Your task to perform on an android device: manage bookmarks in the chrome app Image 0: 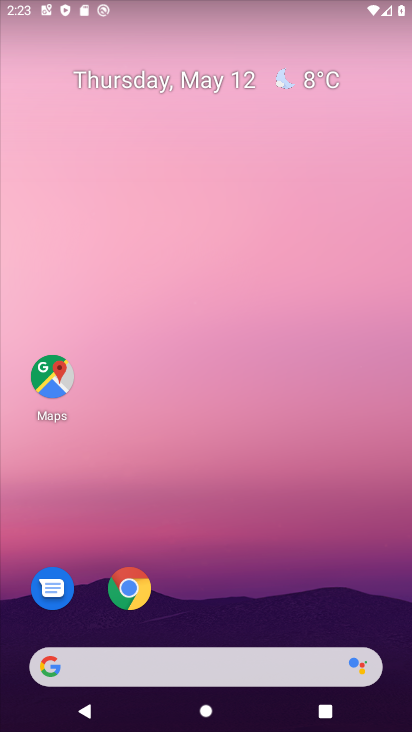
Step 0: drag from (234, 516) to (228, 50)
Your task to perform on an android device: manage bookmarks in the chrome app Image 1: 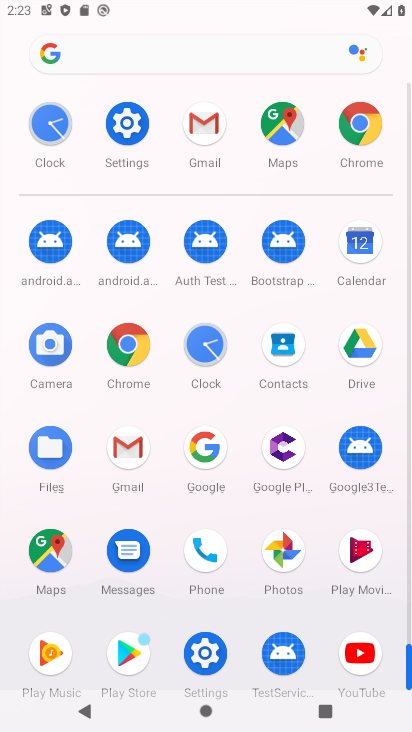
Step 1: drag from (4, 585) to (4, 347)
Your task to perform on an android device: manage bookmarks in the chrome app Image 2: 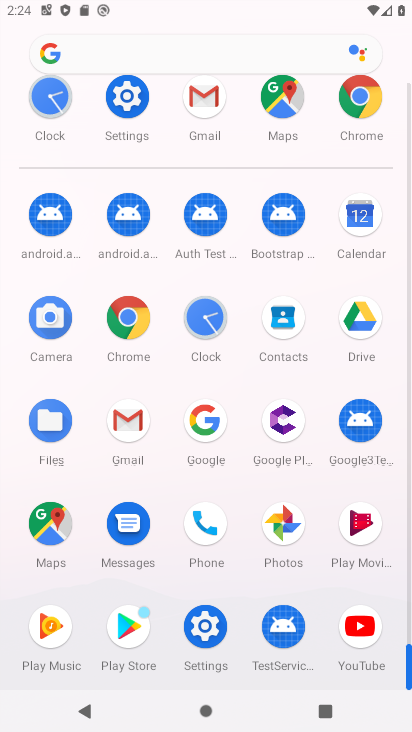
Step 2: click (132, 318)
Your task to perform on an android device: manage bookmarks in the chrome app Image 3: 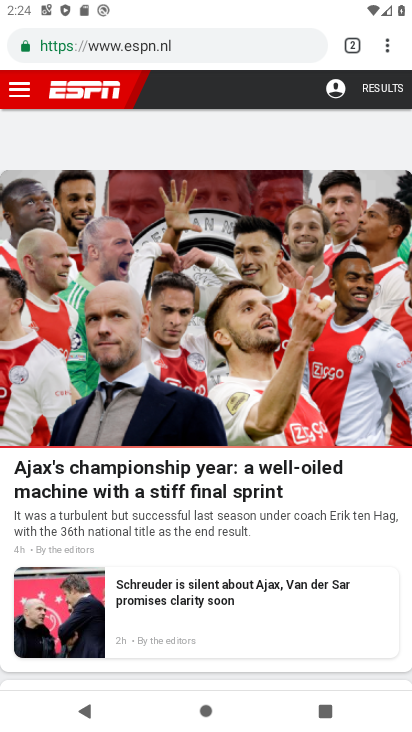
Step 3: drag from (386, 46) to (210, 167)
Your task to perform on an android device: manage bookmarks in the chrome app Image 4: 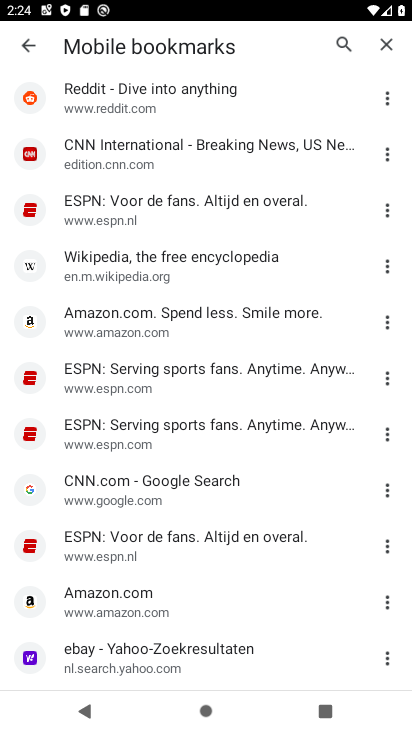
Step 4: click (384, 605)
Your task to perform on an android device: manage bookmarks in the chrome app Image 5: 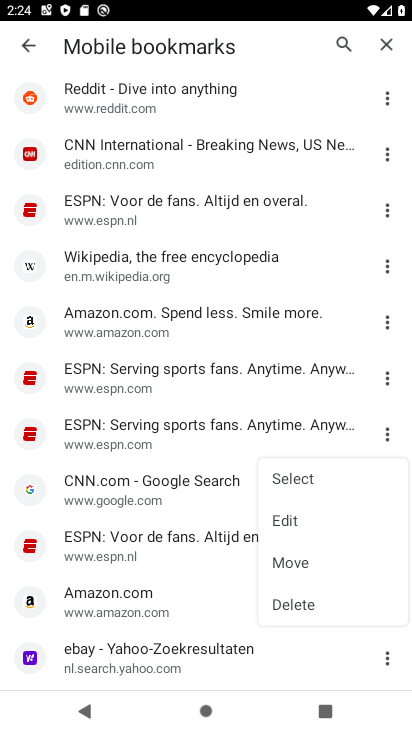
Step 5: click (338, 594)
Your task to perform on an android device: manage bookmarks in the chrome app Image 6: 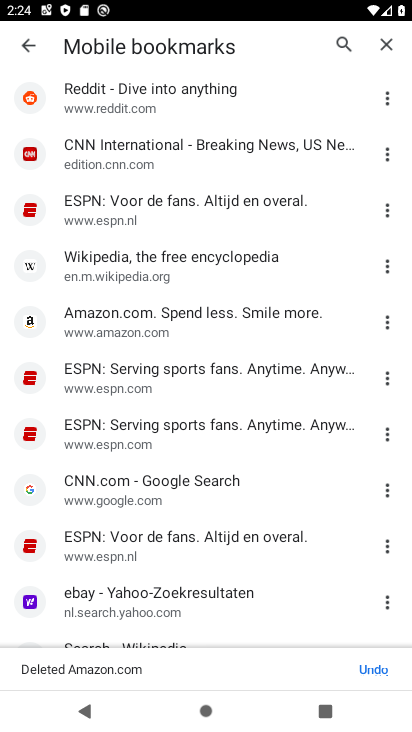
Step 6: drag from (334, 611) to (304, 321)
Your task to perform on an android device: manage bookmarks in the chrome app Image 7: 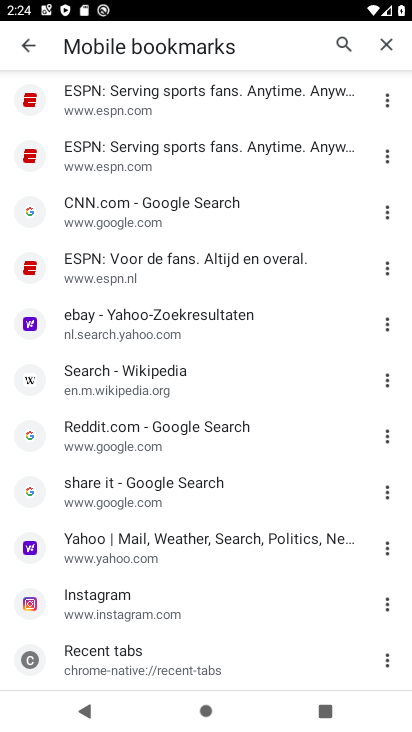
Step 7: click (390, 440)
Your task to perform on an android device: manage bookmarks in the chrome app Image 8: 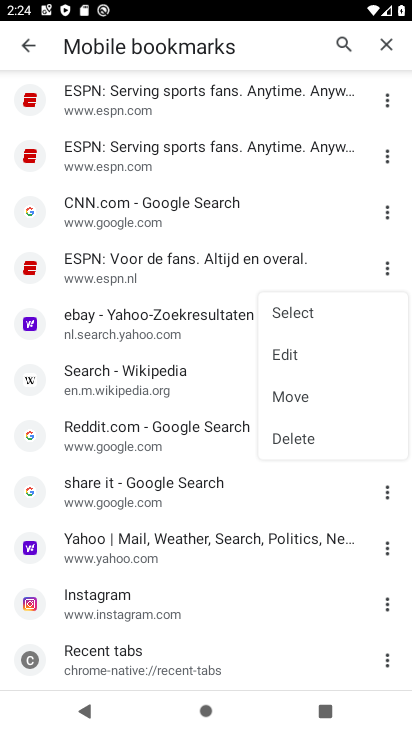
Step 8: click (311, 431)
Your task to perform on an android device: manage bookmarks in the chrome app Image 9: 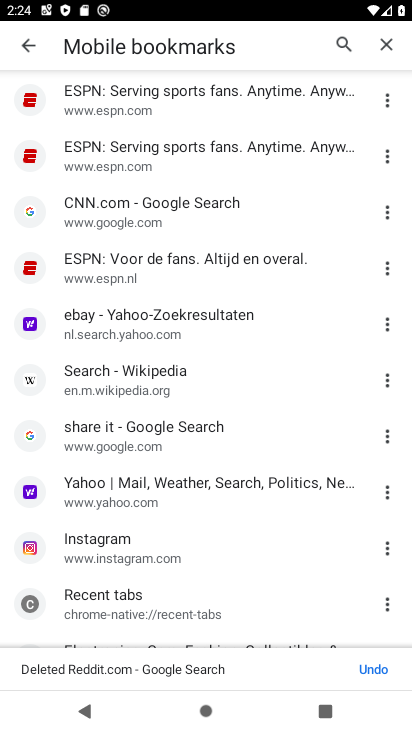
Step 9: click (387, 434)
Your task to perform on an android device: manage bookmarks in the chrome app Image 10: 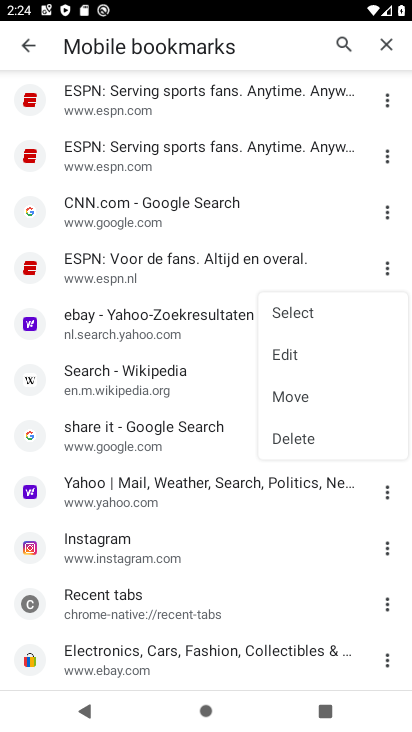
Step 10: click (320, 444)
Your task to perform on an android device: manage bookmarks in the chrome app Image 11: 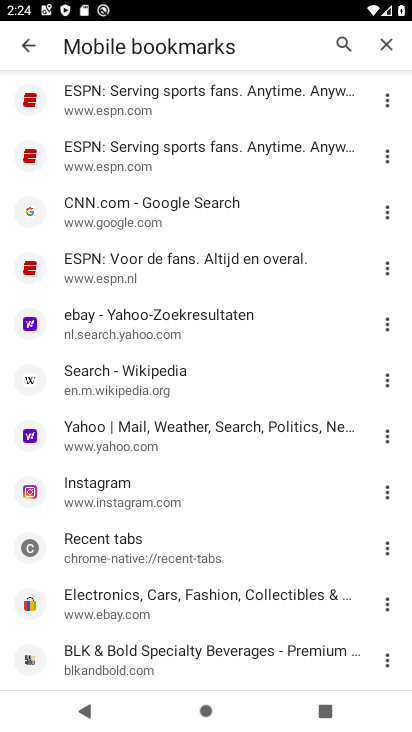
Step 11: task complete